Your task to perform on an android device: Google the capital of Peru Image 0: 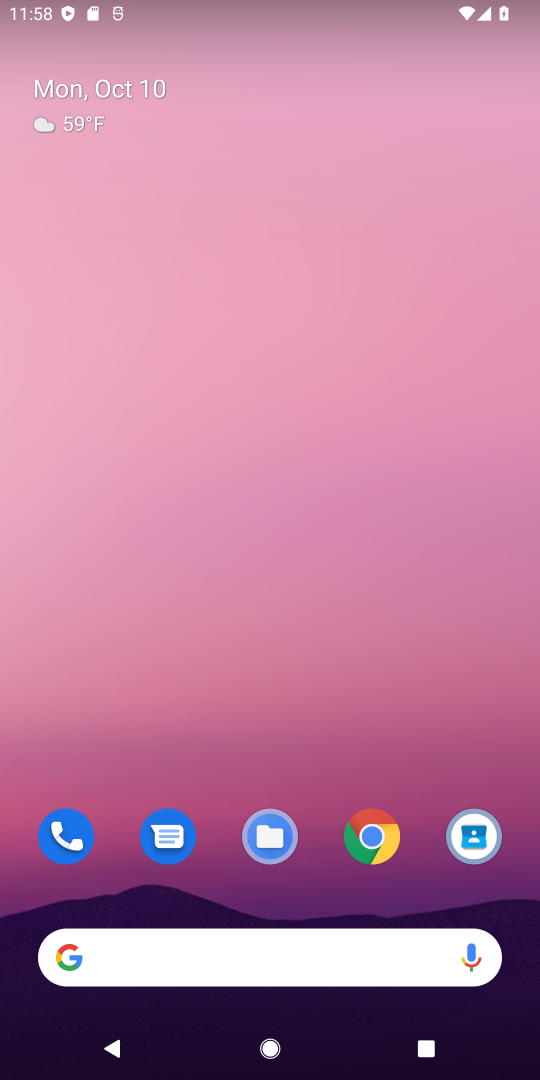
Step 0: click (386, 837)
Your task to perform on an android device: Google the capital of Peru Image 1: 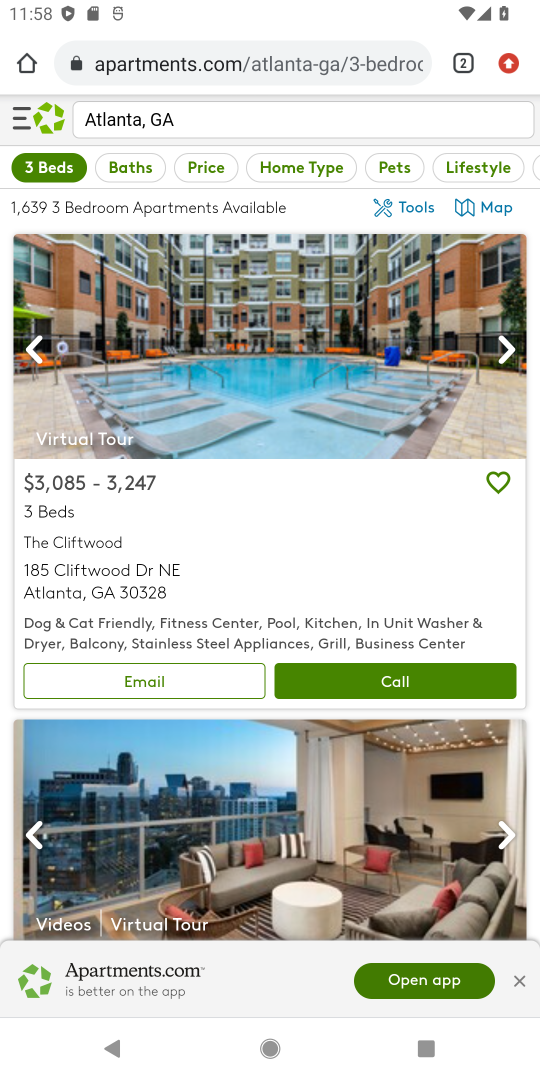
Step 1: press home button
Your task to perform on an android device: Google the capital of Peru Image 2: 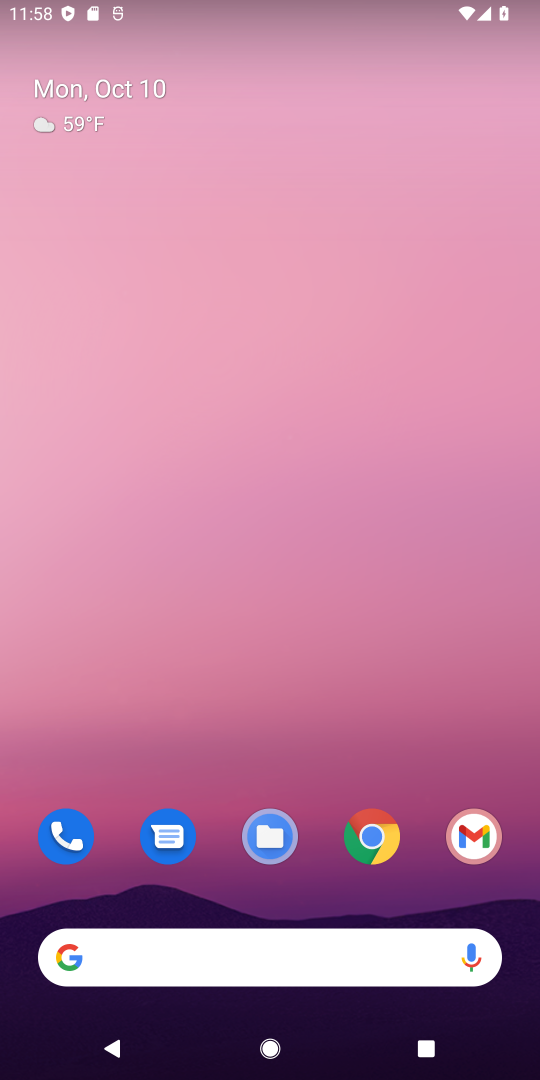
Step 2: click (371, 830)
Your task to perform on an android device: Google the capital of Peru Image 3: 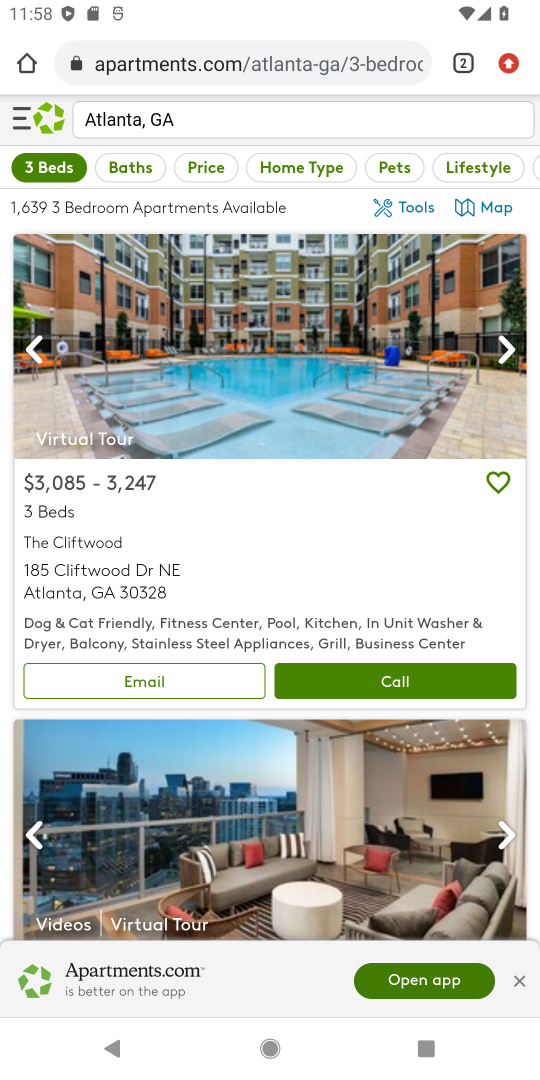
Step 3: click (285, 78)
Your task to perform on an android device: Google the capital of Peru Image 4: 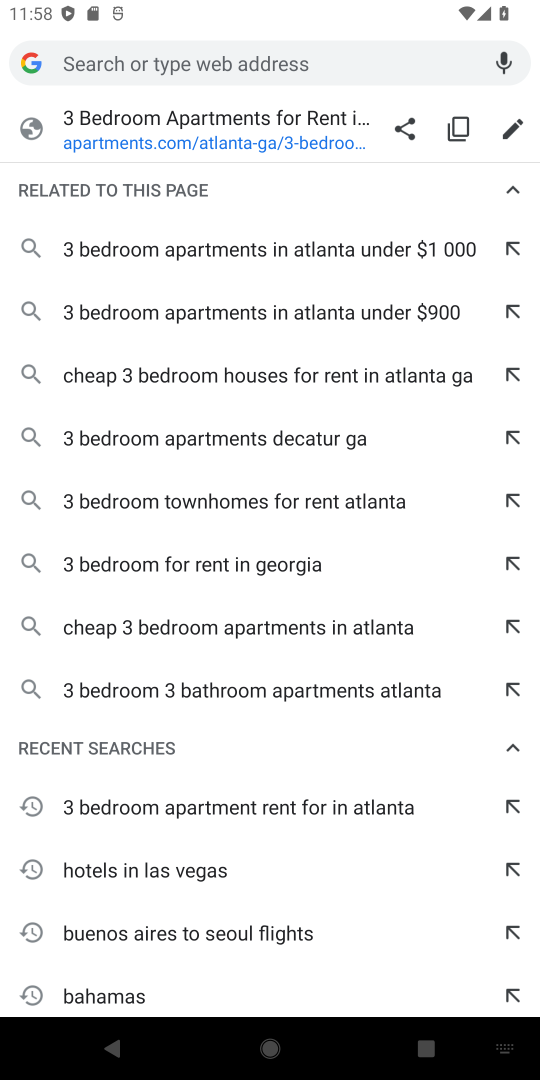
Step 4: type "peru capital"
Your task to perform on an android device: Google the capital of Peru Image 5: 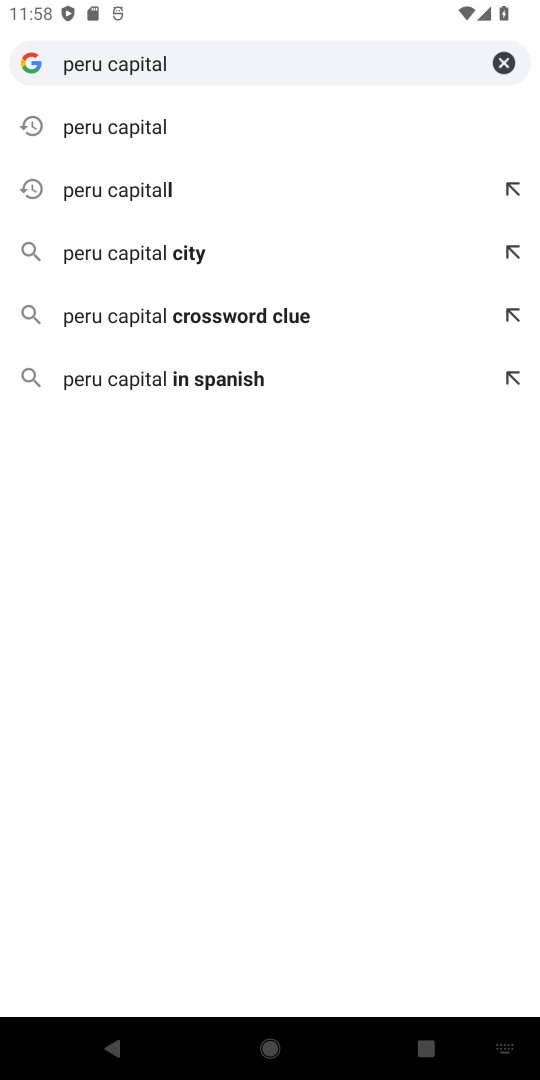
Step 5: click (128, 137)
Your task to perform on an android device: Google the capital of Peru Image 6: 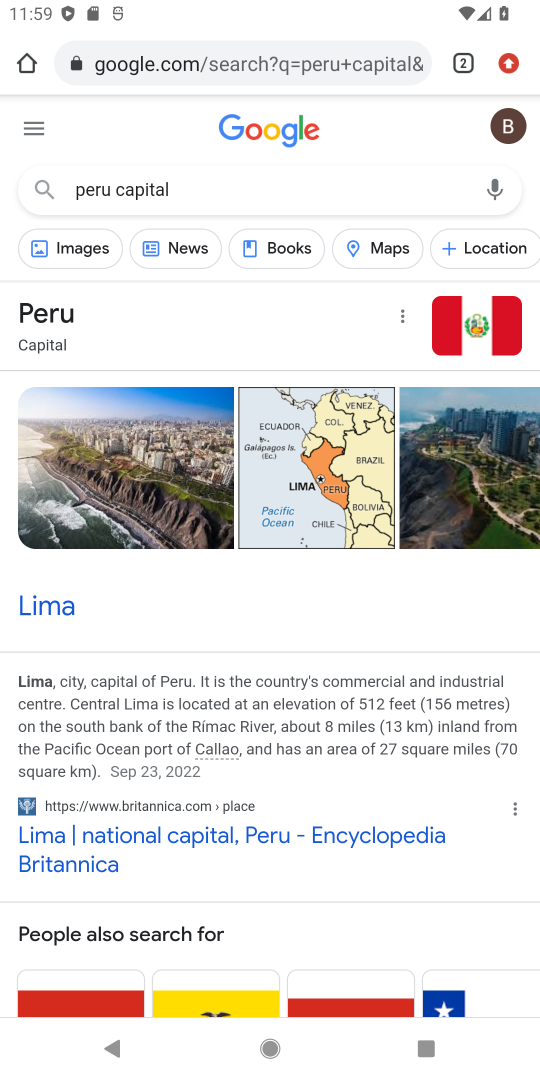
Step 6: task complete